Your task to perform on an android device: Find coffee shops on Maps Image 0: 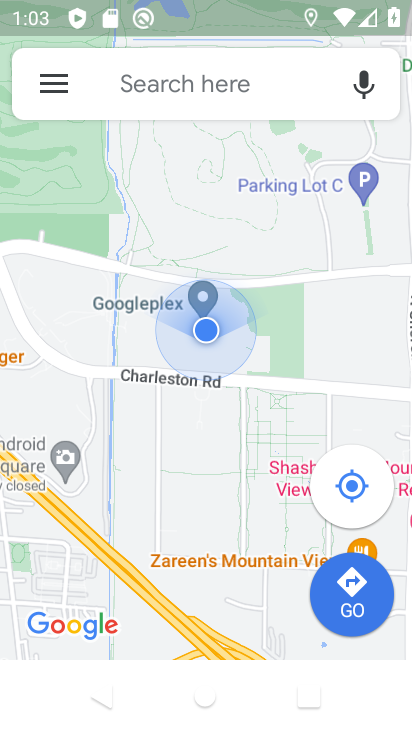
Step 0: click (205, 92)
Your task to perform on an android device: Find coffee shops on Maps Image 1: 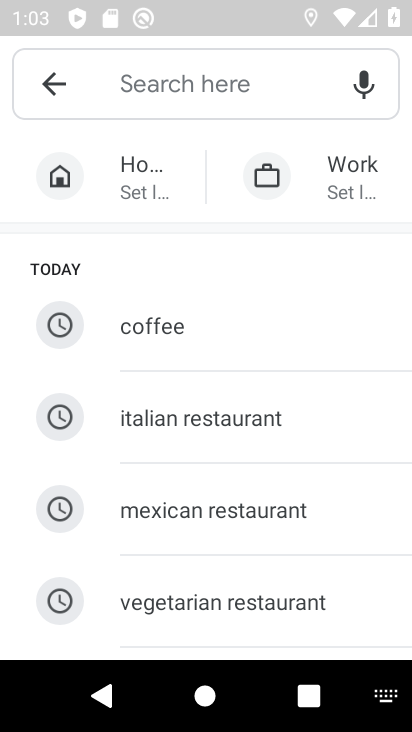
Step 1: click (199, 326)
Your task to perform on an android device: Find coffee shops on Maps Image 2: 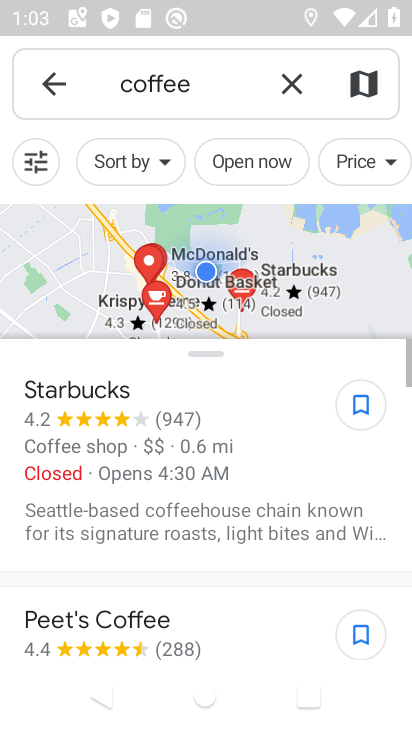
Step 2: task complete